Your task to perform on an android device: turn on airplane mode Image 0: 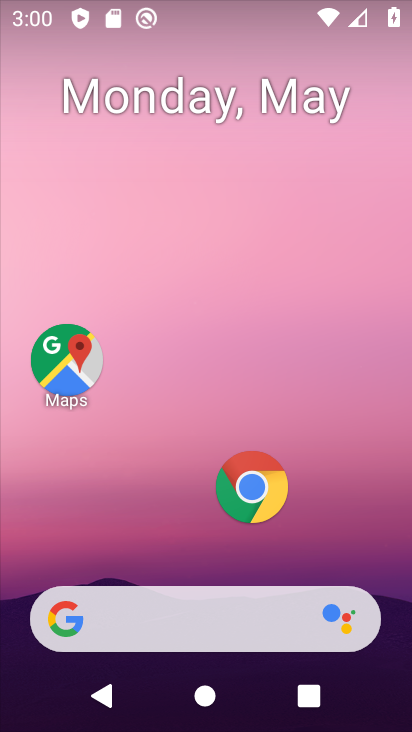
Step 0: drag from (145, 523) to (123, 123)
Your task to perform on an android device: turn on airplane mode Image 1: 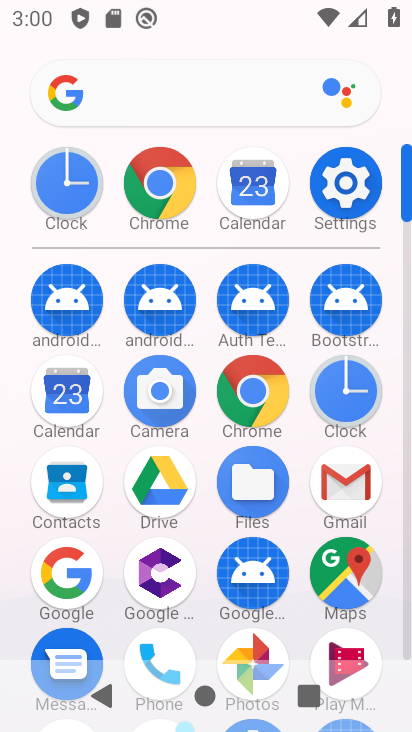
Step 1: click (350, 186)
Your task to perform on an android device: turn on airplane mode Image 2: 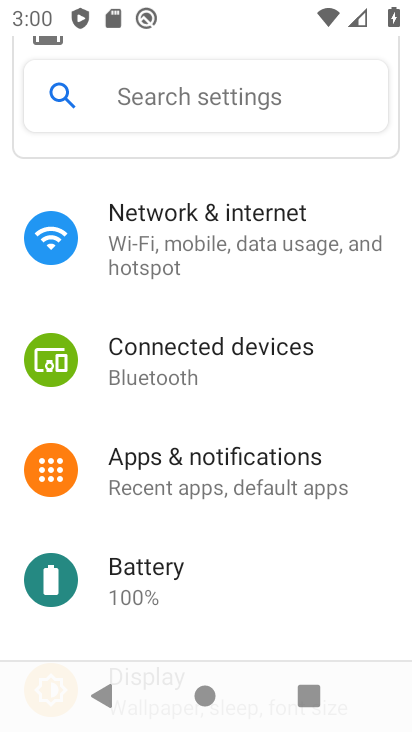
Step 2: click (194, 244)
Your task to perform on an android device: turn on airplane mode Image 3: 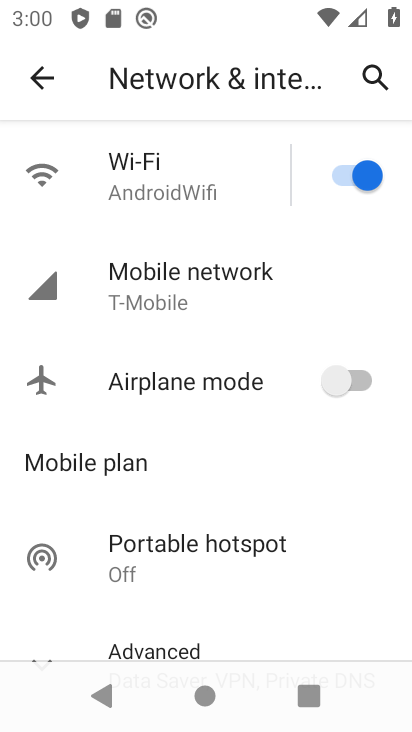
Step 3: click (358, 374)
Your task to perform on an android device: turn on airplane mode Image 4: 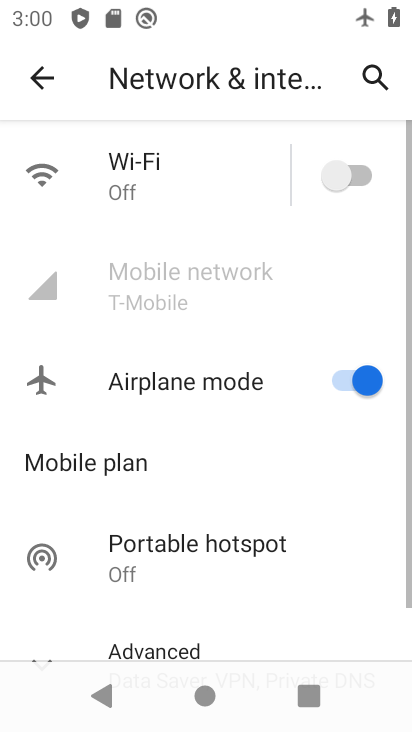
Step 4: task complete